Your task to perform on an android device: Show me the alarms in the clock app Image 0: 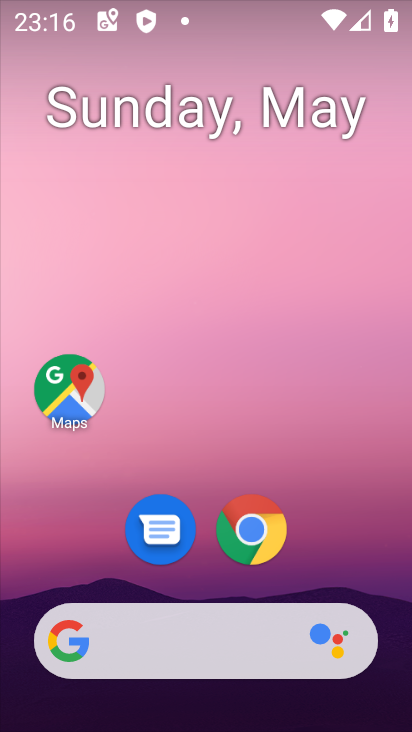
Step 0: drag from (328, 421) to (339, 126)
Your task to perform on an android device: Show me the alarms in the clock app Image 1: 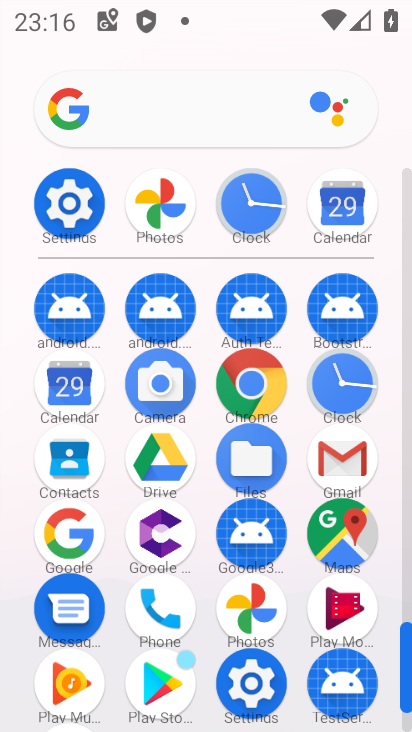
Step 1: click (276, 226)
Your task to perform on an android device: Show me the alarms in the clock app Image 2: 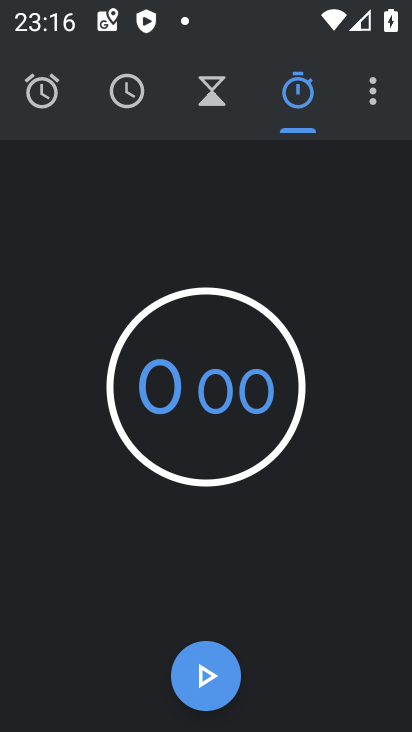
Step 2: click (376, 104)
Your task to perform on an android device: Show me the alarms in the clock app Image 3: 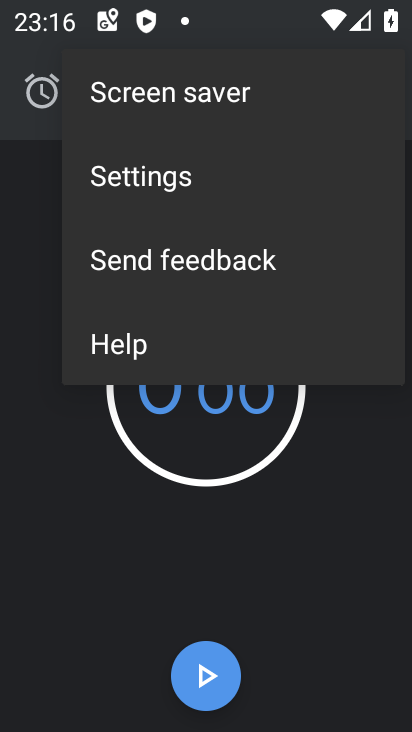
Step 3: click (270, 171)
Your task to perform on an android device: Show me the alarms in the clock app Image 4: 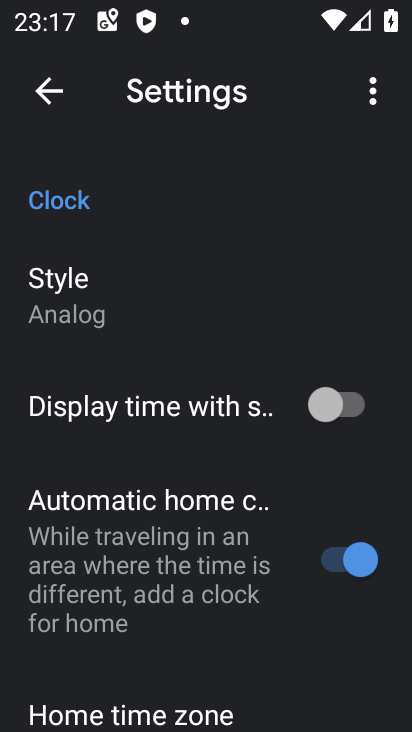
Step 4: task complete